Your task to perform on an android device: Open maps Image 0: 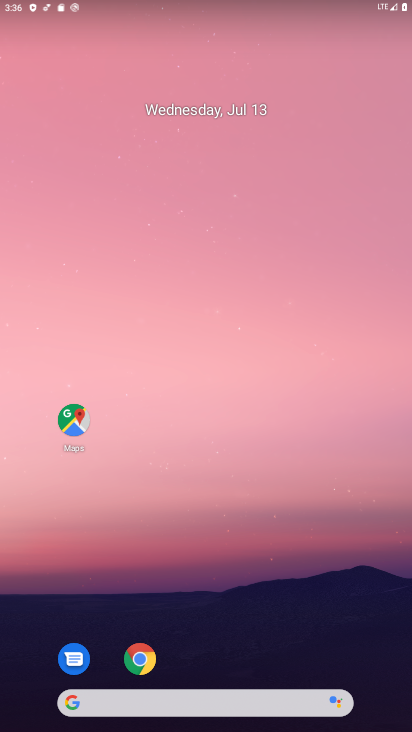
Step 0: click (69, 417)
Your task to perform on an android device: Open maps Image 1: 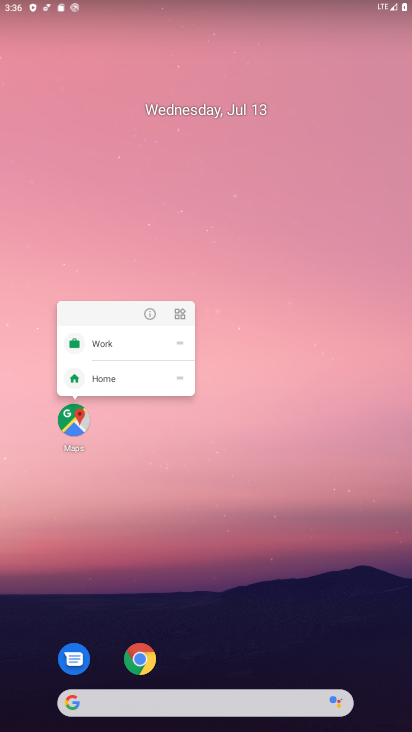
Step 1: click (76, 412)
Your task to perform on an android device: Open maps Image 2: 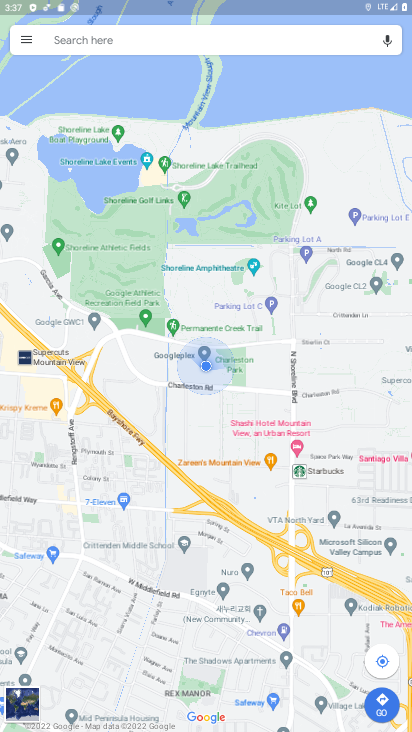
Step 2: task complete